Your task to perform on an android device: Open Chrome and go to settings Image 0: 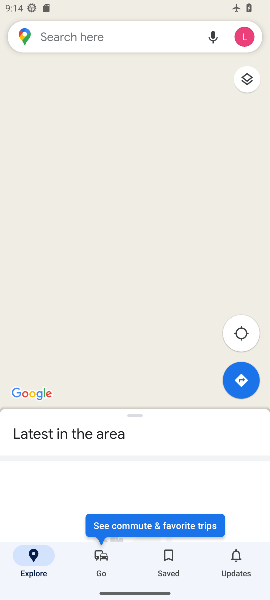
Step 0: press home button
Your task to perform on an android device: Open Chrome and go to settings Image 1: 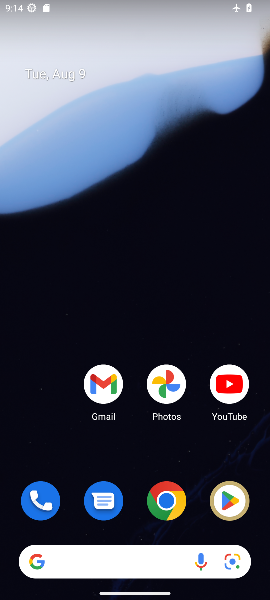
Step 1: click (166, 499)
Your task to perform on an android device: Open Chrome and go to settings Image 2: 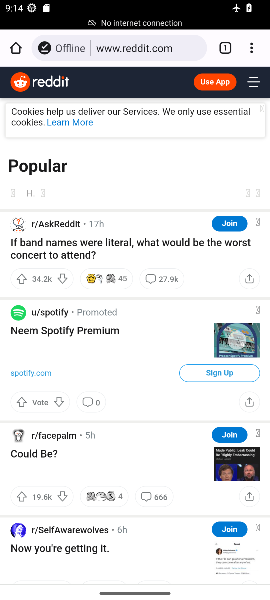
Step 2: click (254, 54)
Your task to perform on an android device: Open Chrome and go to settings Image 3: 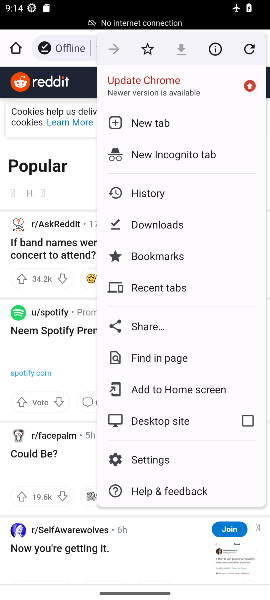
Step 3: click (152, 460)
Your task to perform on an android device: Open Chrome and go to settings Image 4: 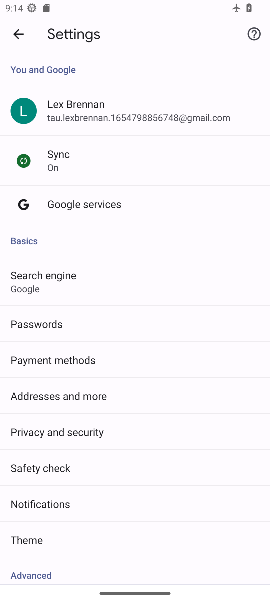
Step 4: task complete